Your task to perform on an android device: turn on bluetooth scan Image 0: 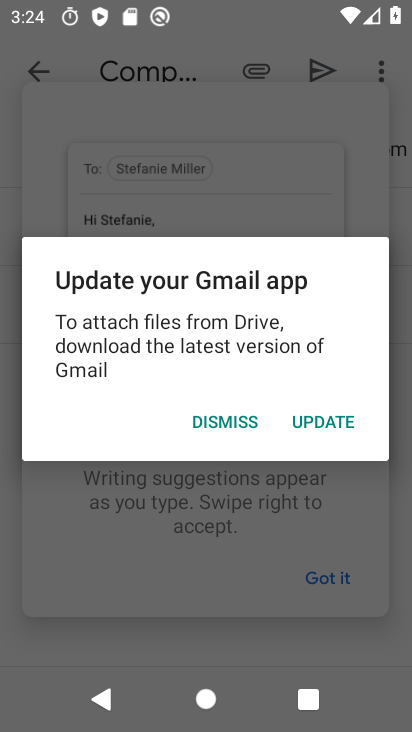
Step 0: press home button
Your task to perform on an android device: turn on bluetooth scan Image 1: 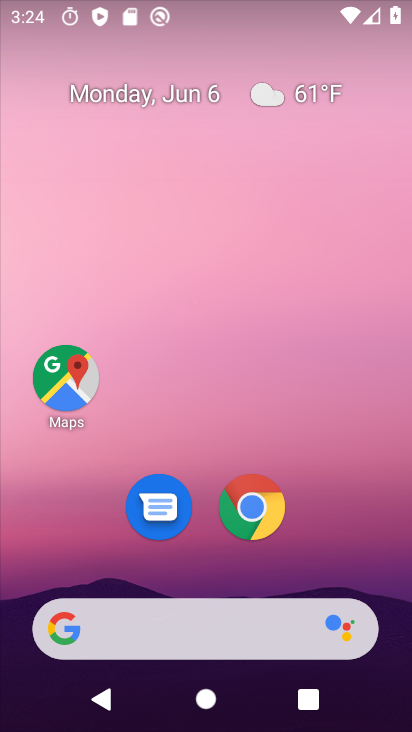
Step 1: drag from (194, 577) to (206, 202)
Your task to perform on an android device: turn on bluetooth scan Image 2: 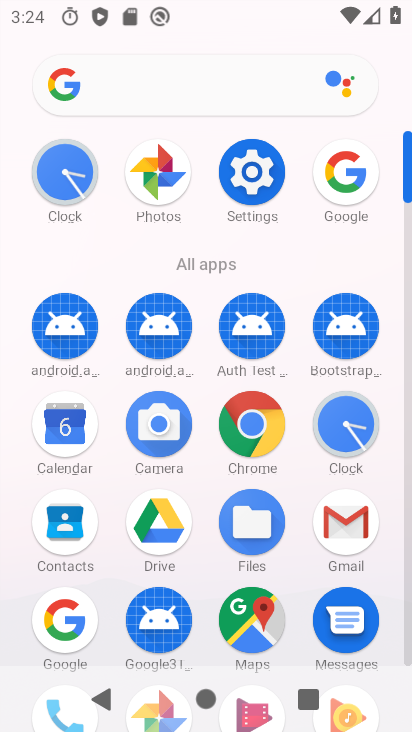
Step 2: click (246, 185)
Your task to perform on an android device: turn on bluetooth scan Image 3: 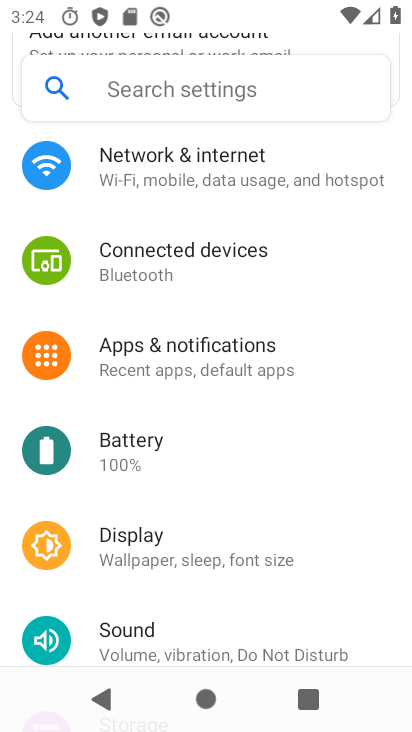
Step 3: drag from (237, 221) to (233, 493)
Your task to perform on an android device: turn on bluetooth scan Image 4: 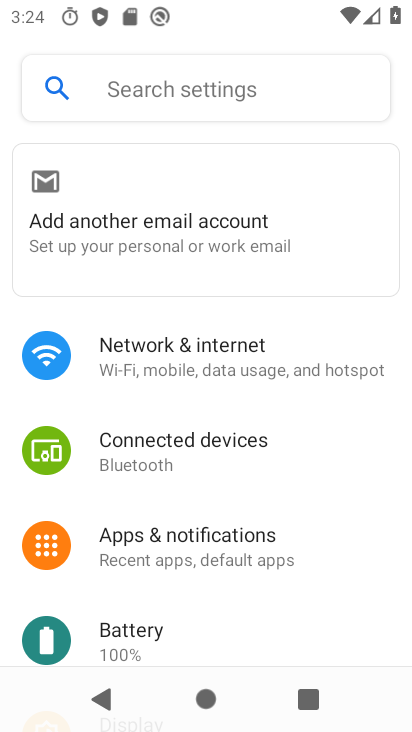
Step 4: drag from (247, 610) to (269, 281)
Your task to perform on an android device: turn on bluetooth scan Image 5: 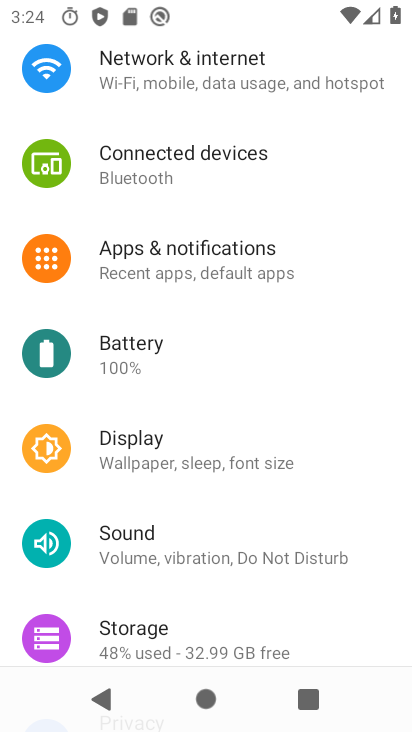
Step 5: drag from (249, 554) to (290, 269)
Your task to perform on an android device: turn on bluetooth scan Image 6: 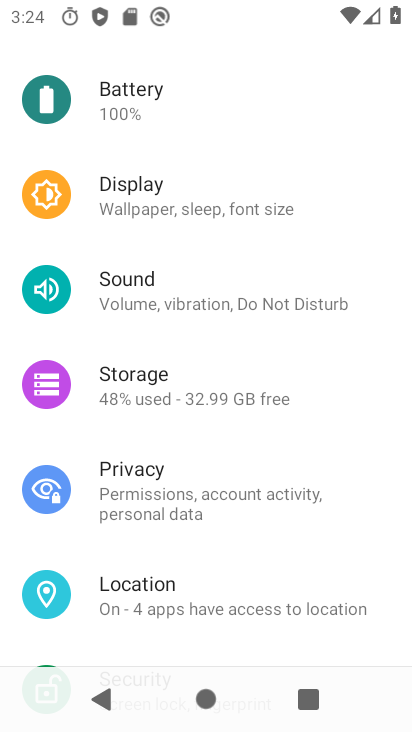
Step 6: click (204, 594)
Your task to perform on an android device: turn on bluetooth scan Image 7: 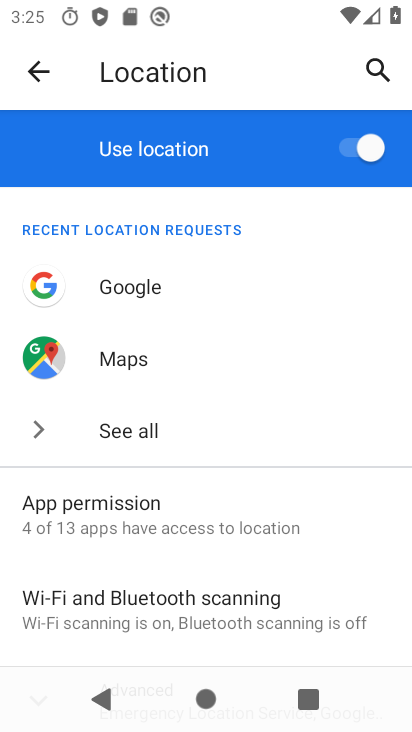
Step 7: drag from (257, 566) to (260, 312)
Your task to perform on an android device: turn on bluetooth scan Image 8: 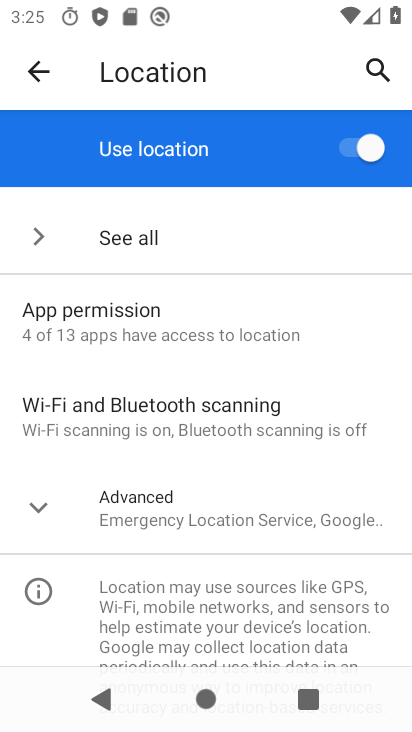
Step 8: click (221, 437)
Your task to perform on an android device: turn on bluetooth scan Image 9: 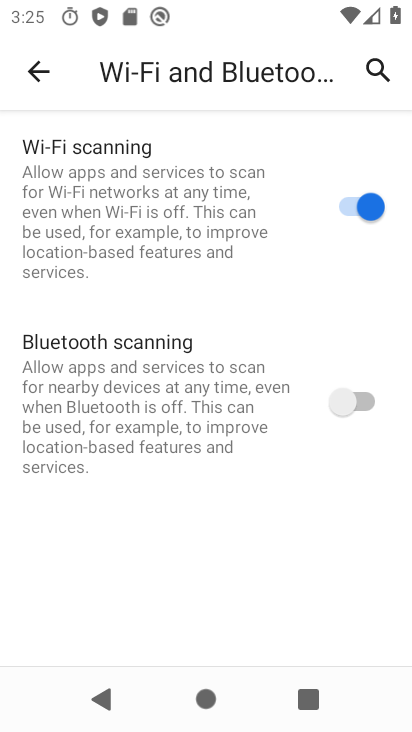
Step 9: click (372, 399)
Your task to perform on an android device: turn on bluetooth scan Image 10: 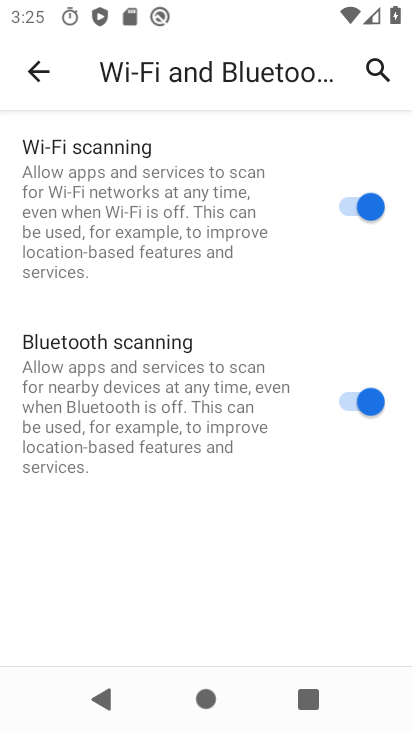
Step 10: task complete